Your task to perform on an android device: Open Chrome and go to the settings page Image 0: 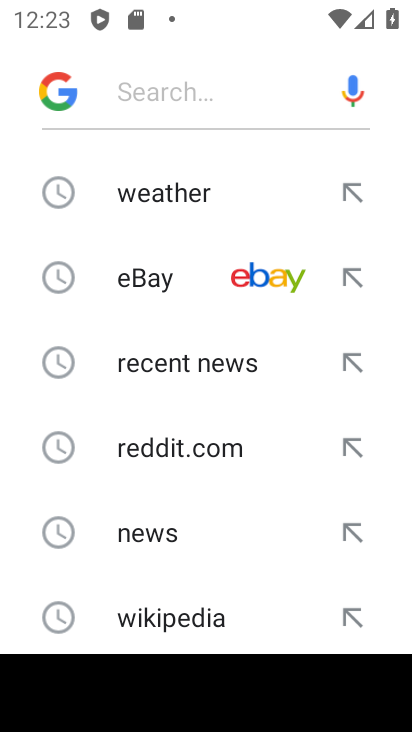
Step 0: press home button
Your task to perform on an android device: Open Chrome and go to the settings page Image 1: 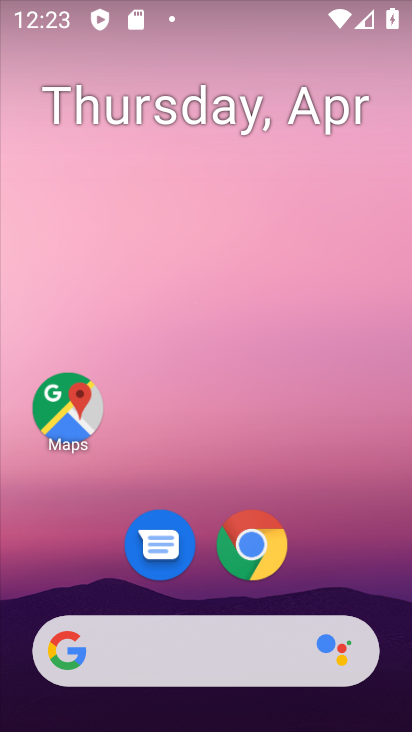
Step 1: drag from (337, 508) to (355, 139)
Your task to perform on an android device: Open Chrome and go to the settings page Image 2: 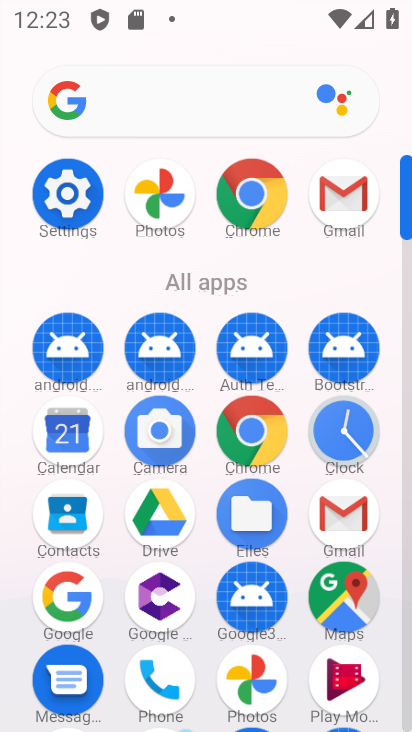
Step 2: click (66, 181)
Your task to perform on an android device: Open Chrome and go to the settings page Image 3: 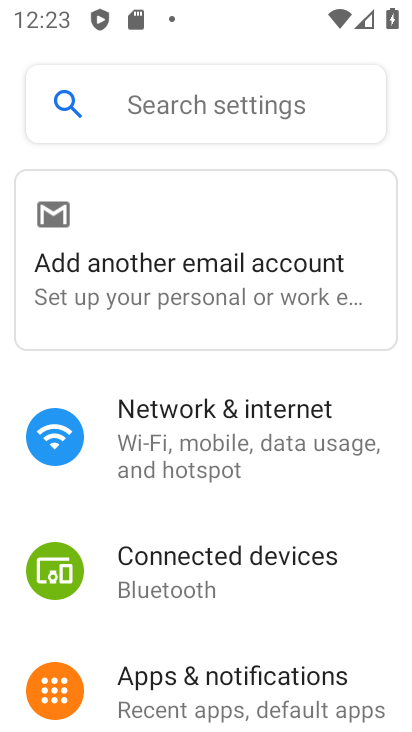
Step 3: task complete